Your task to perform on an android device: toggle pop-ups in chrome Image 0: 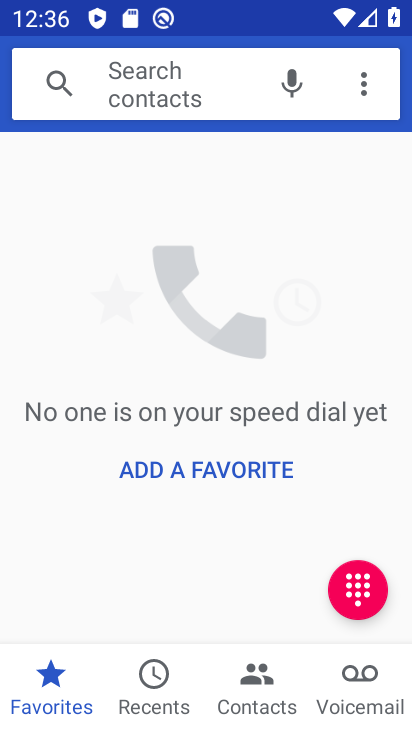
Step 0: press home button
Your task to perform on an android device: toggle pop-ups in chrome Image 1: 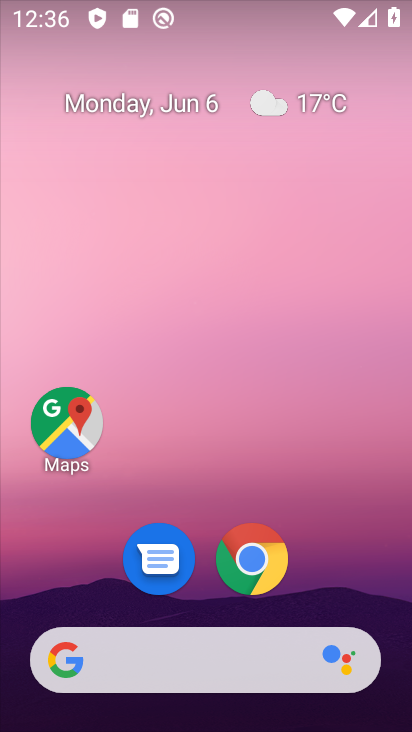
Step 1: drag from (65, 627) to (205, 173)
Your task to perform on an android device: toggle pop-ups in chrome Image 2: 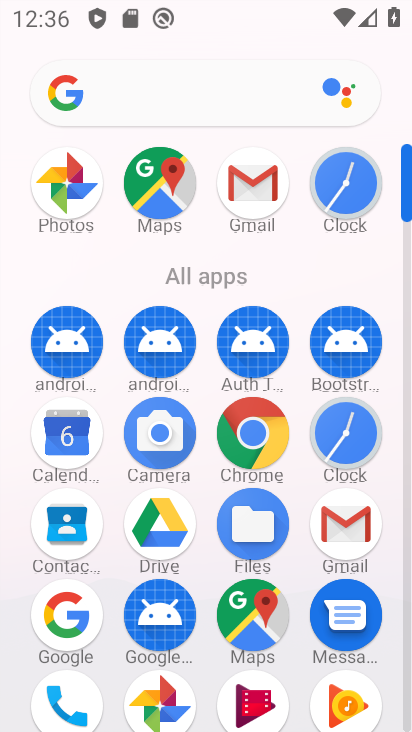
Step 2: drag from (178, 647) to (242, 393)
Your task to perform on an android device: toggle pop-ups in chrome Image 3: 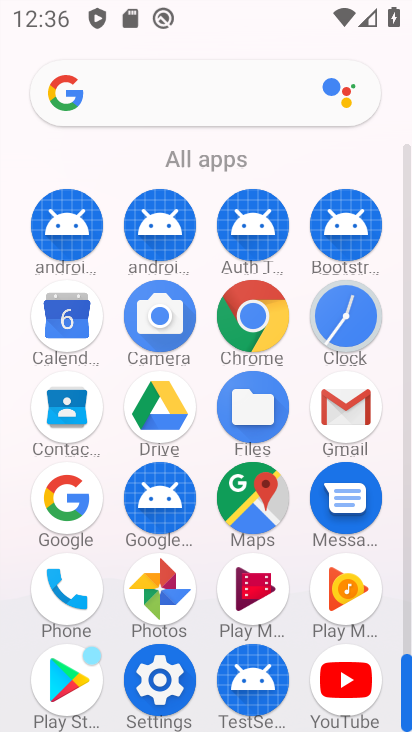
Step 3: click (254, 291)
Your task to perform on an android device: toggle pop-ups in chrome Image 4: 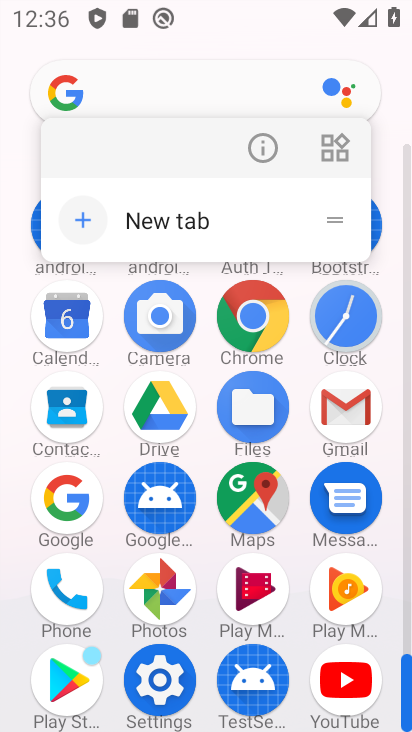
Step 4: click (239, 304)
Your task to perform on an android device: toggle pop-ups in chrome Image 5: 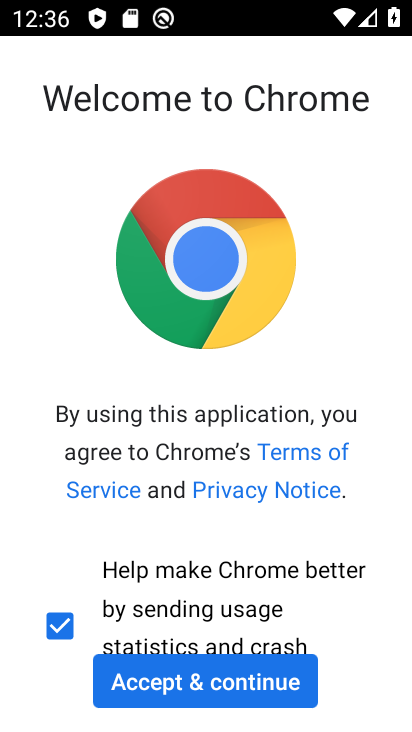
Step 5: click (200, 681)
Your task to perform on an android device: toggle pop-ups in chrome Image 6: 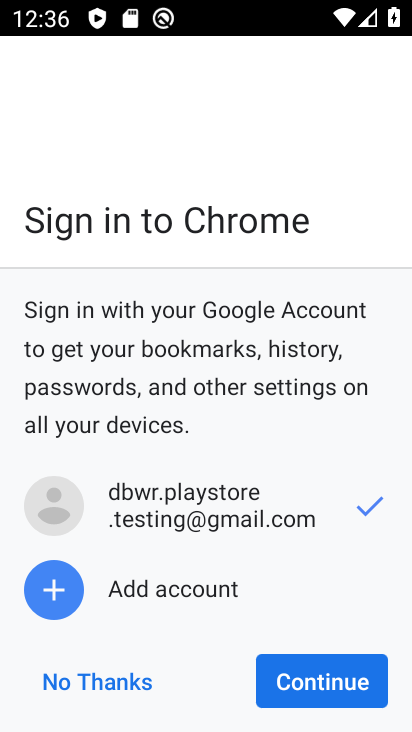
Step 6: click (280, 684)
Your task to perform on an android device: toggle pop-ups in chrome Image 7: 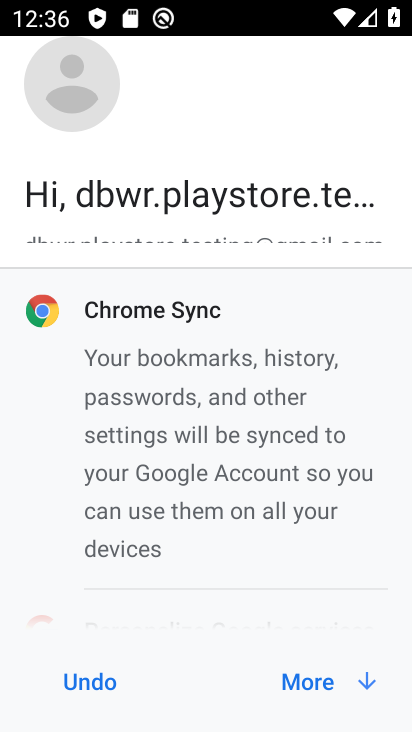
Step 7: click (340, 688)
Your task to perform on an android device: toggle pop-ups in chrome Image 8: 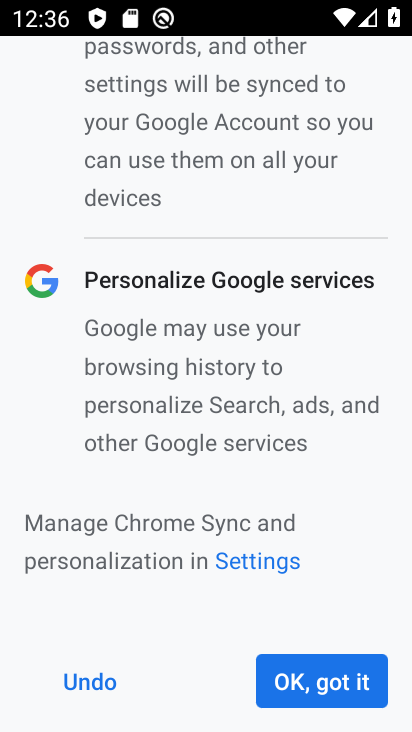
Step 8: click (336, 689)
Your task to perform on an android device: toggle pop-ups in chrome Image 9: 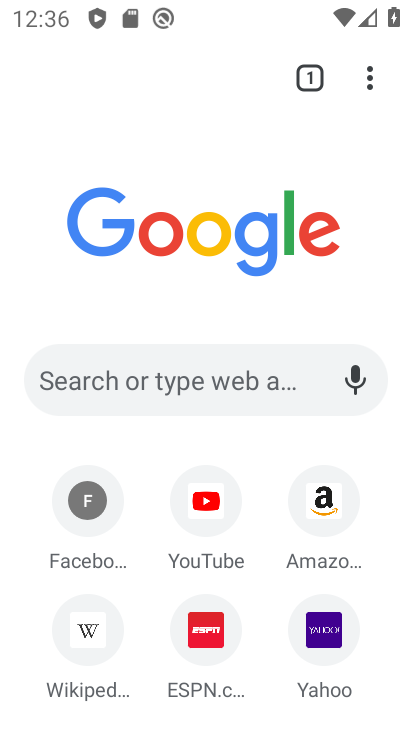
Step 9: drag from (379, 78) to (129, 627)
Your task to perform on an android device: toggle pop-ups in chrome Image 10: 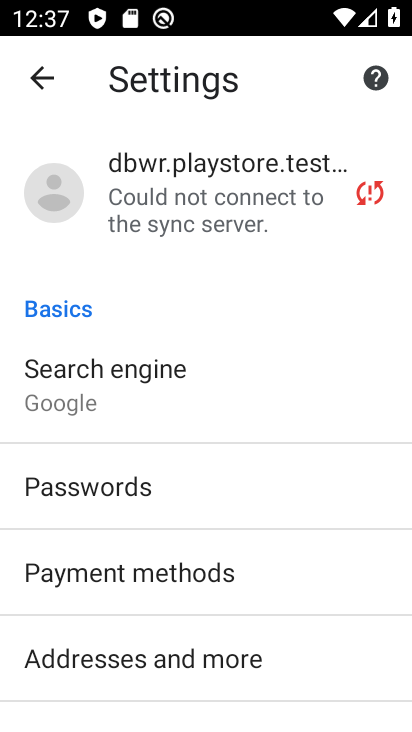
Step 10: drag from (156, 646) to (301, 228)
Your task to perform on an android device: toggle pop-ups in chrome Image 11: 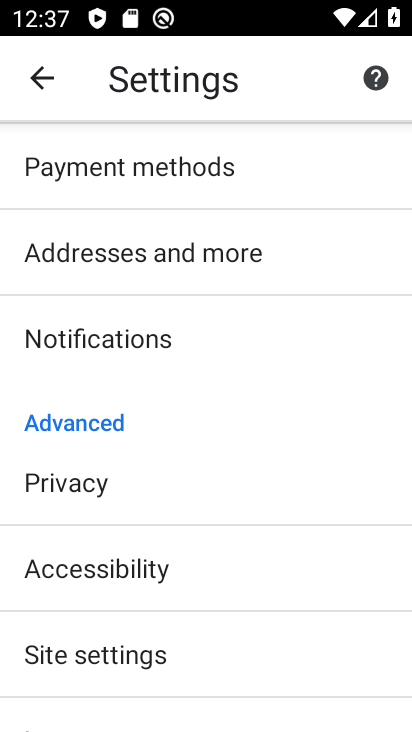
Step 11: click (176, 648)
Your task to perform on an android device: toggle pop-ups in chrome Image 12: 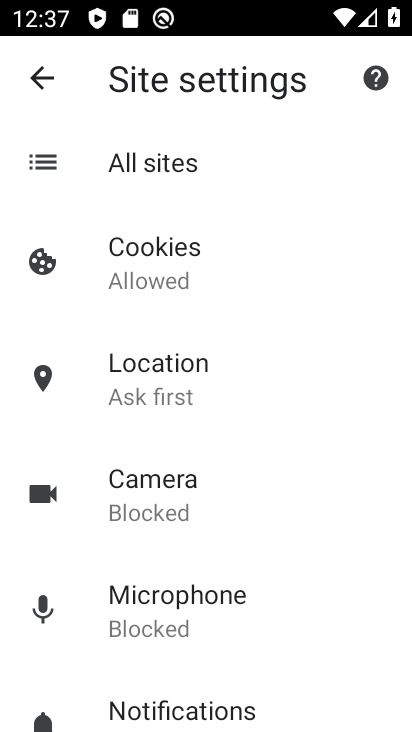
Step 12: drag from (135, 666) to (243, 321)
Your task to perform on an android device: toggle pop-ups in chrome Image 13: 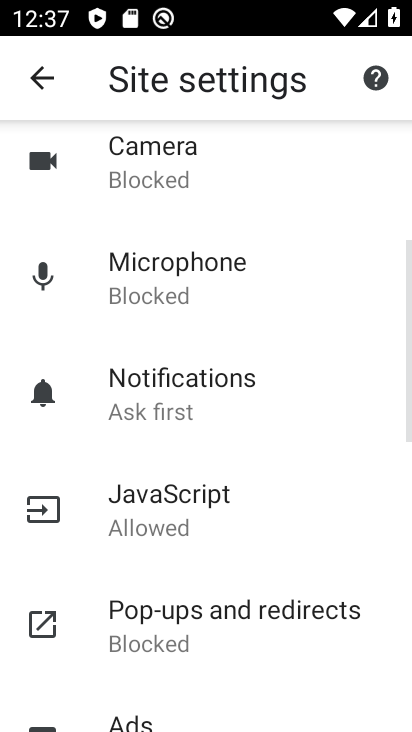
Step 13: click (212, 638)
Your task to perform on an android device: toggle pop-ups in chrome Image 14: 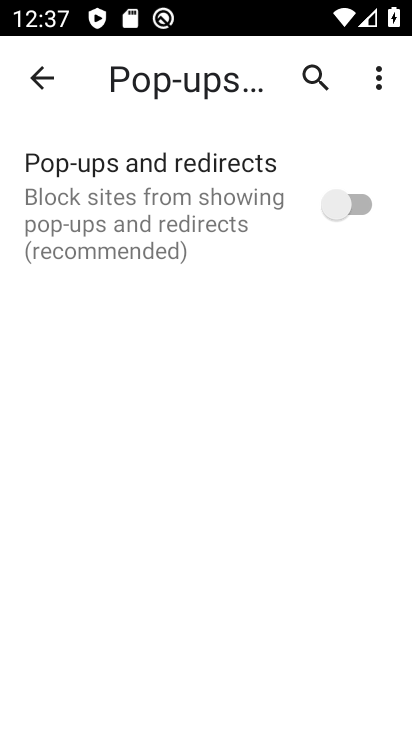
Step 14: click (372, 205)
Your task to perform on an android device: toggle pop-ups in chrome Image 15: 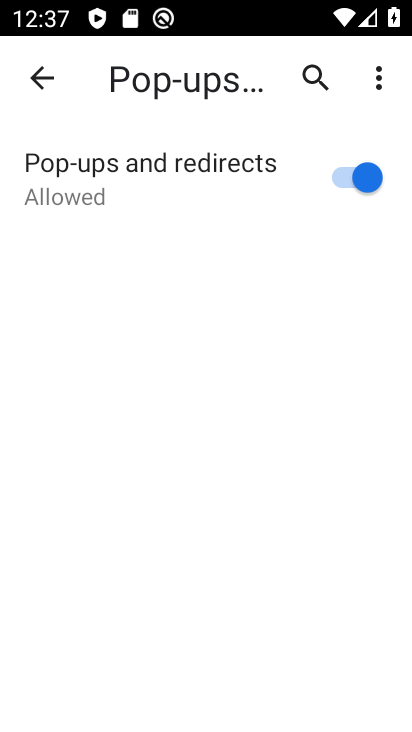
Step 15: task complete